Your task to perform on an android device: turn on javascript in the chrome app Image 0: 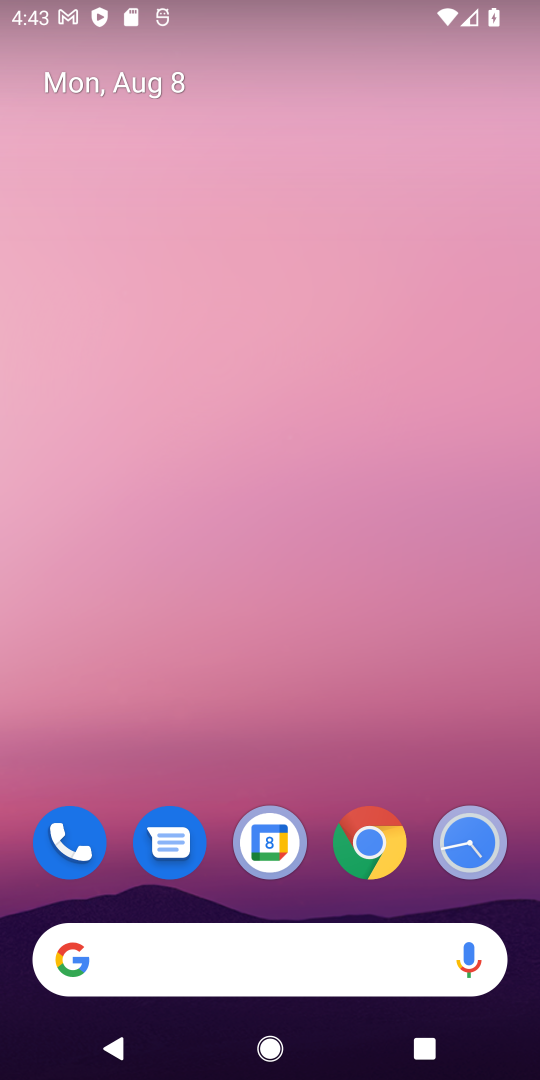
Step 0: click (363, 836)
Your task to perform on an android device: turn on javascript in the chrome app Image 1: 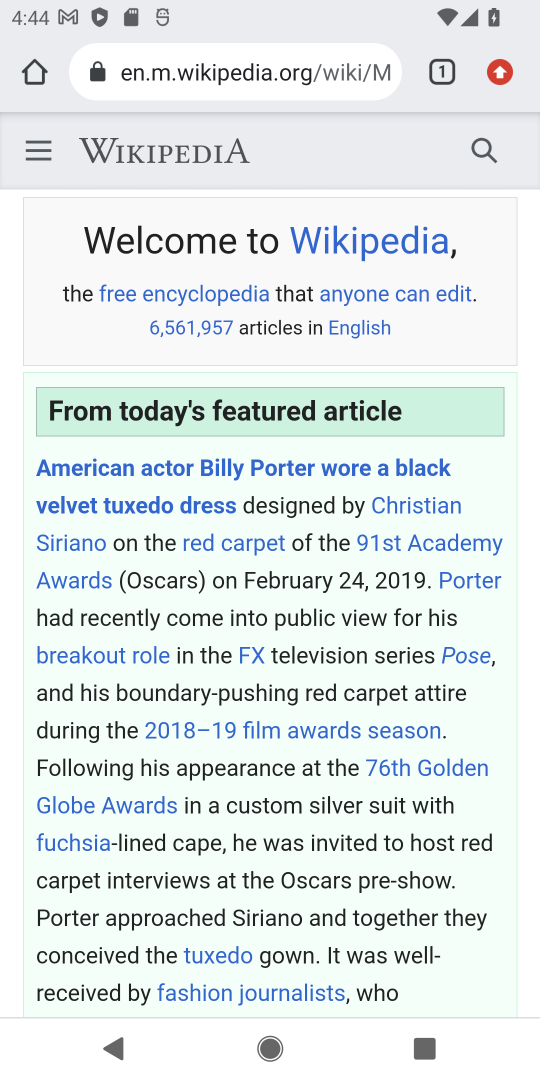
Step 1: click (510, 70)
Your task to perform on an android device: turn on javascript in the chrome app Image 2: 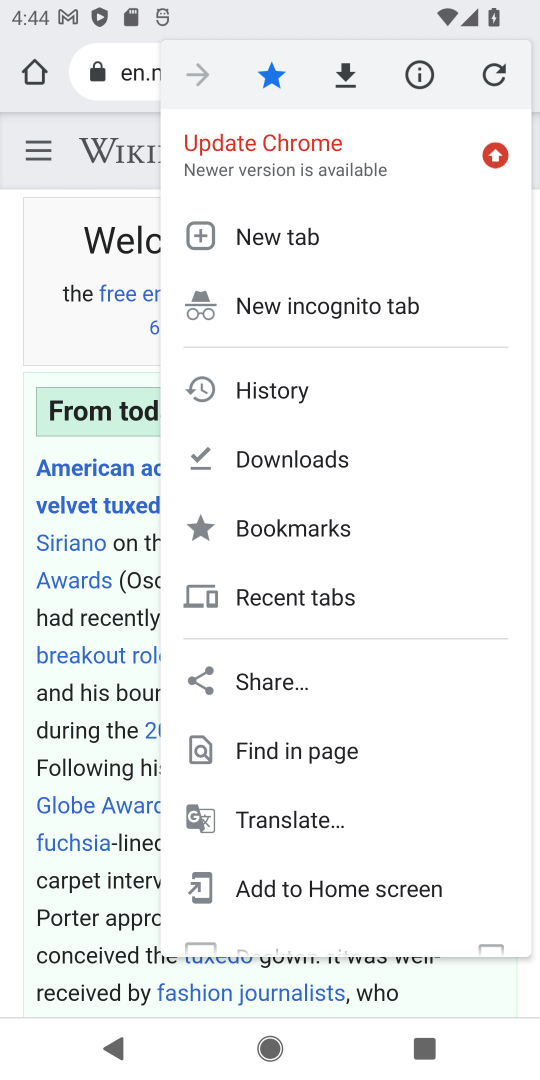
Step 2: drag from (337, 711) to (306, 366)
Your task to perform on an android device: turn on javascript in the chrome app Image 3: 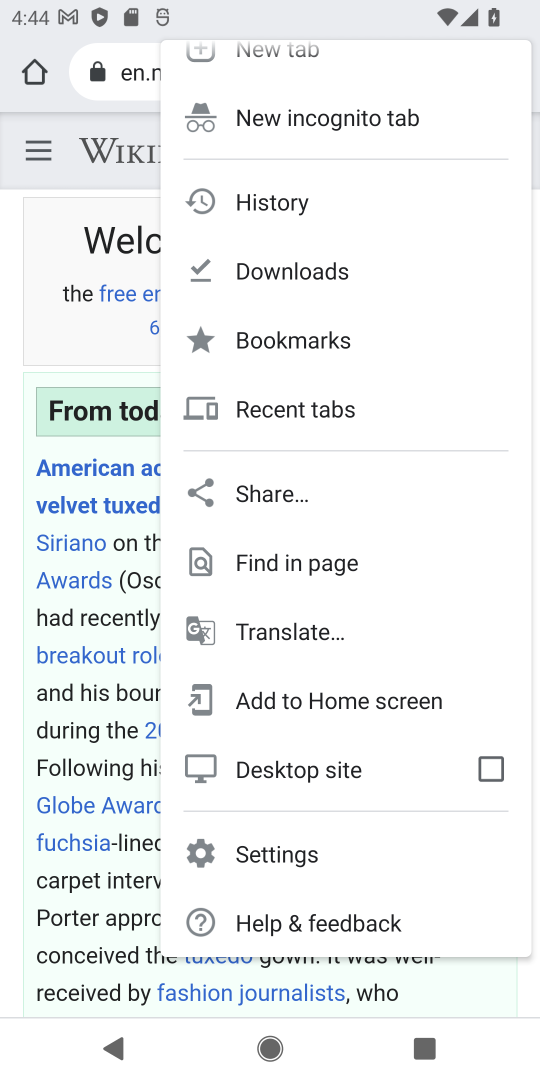
Step 3: click (304, 844)
Your task to perform on an android device: turn on javascript in the chrome app Image 4: 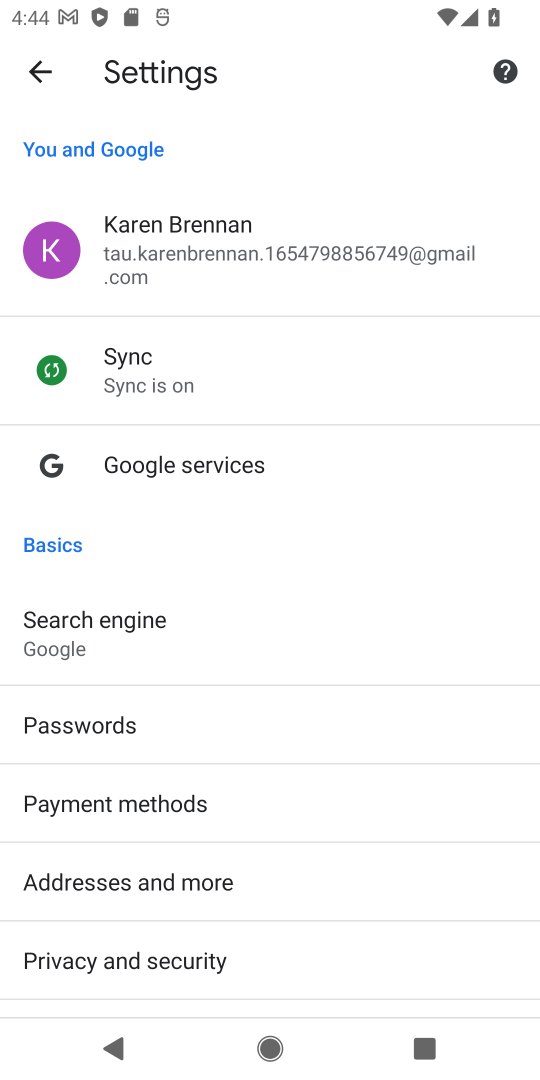
Step 4: drag from (282, 872) to (251, 331)
Your task to perform on an android device: turn on javascript in the chrome app Image 5: 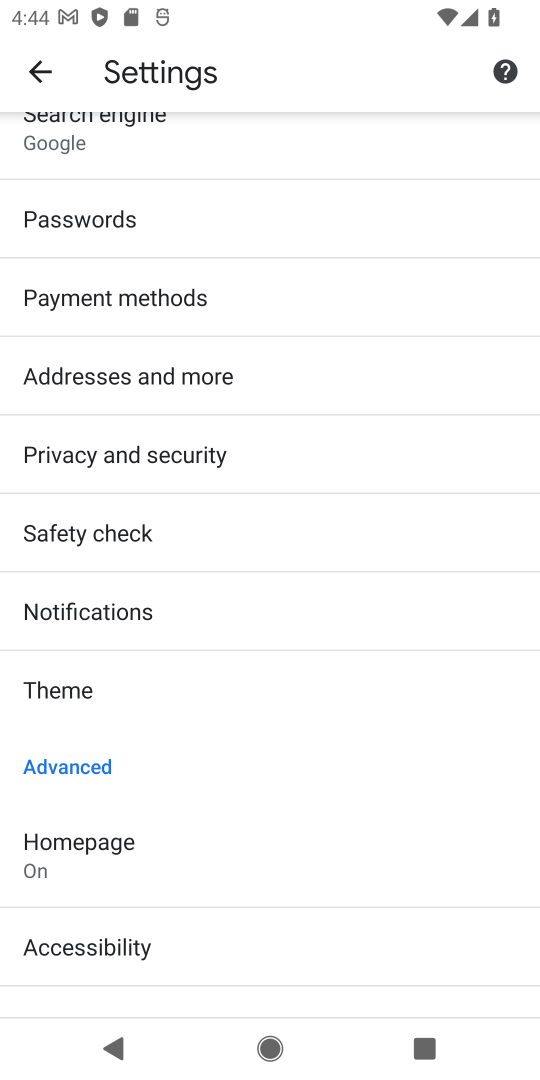
Step 5: drag from (274, 782) to (259, 382)
Your task to perform on an android device: turn on javascript in the chrome app Image 6: 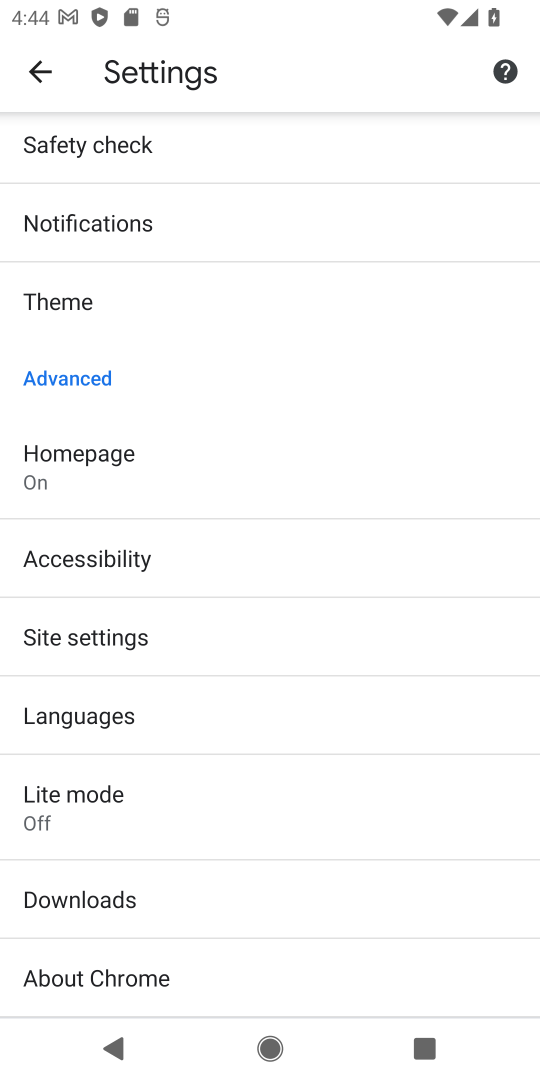
Step 6: click (119, 626)
Your task to perform on an android device: turn on javascript in the chrome app Image 7: 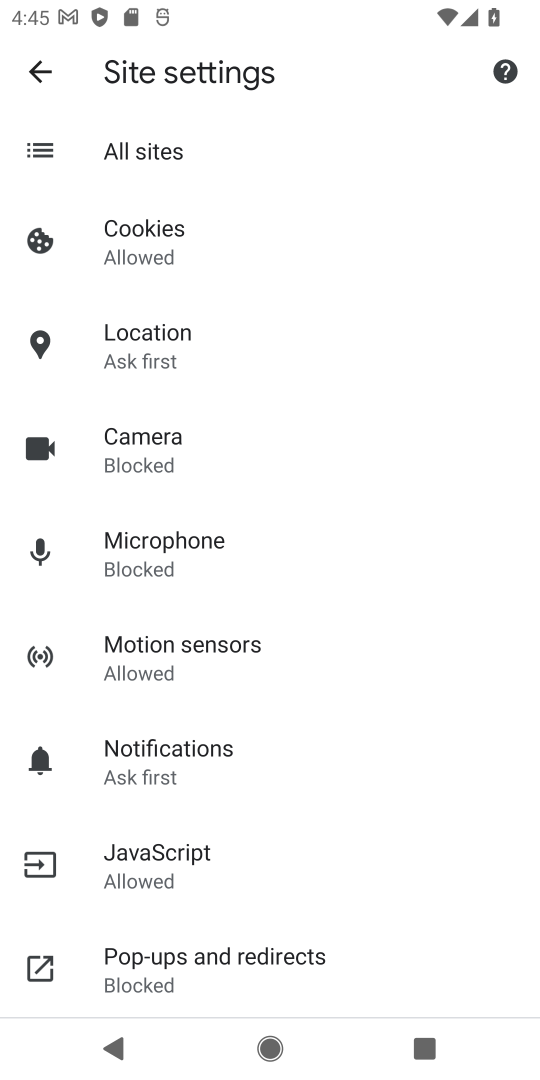
Step 7: click (248, 843)
Your task to perform on an android device: turn on javascript in the chrome app Image 8: 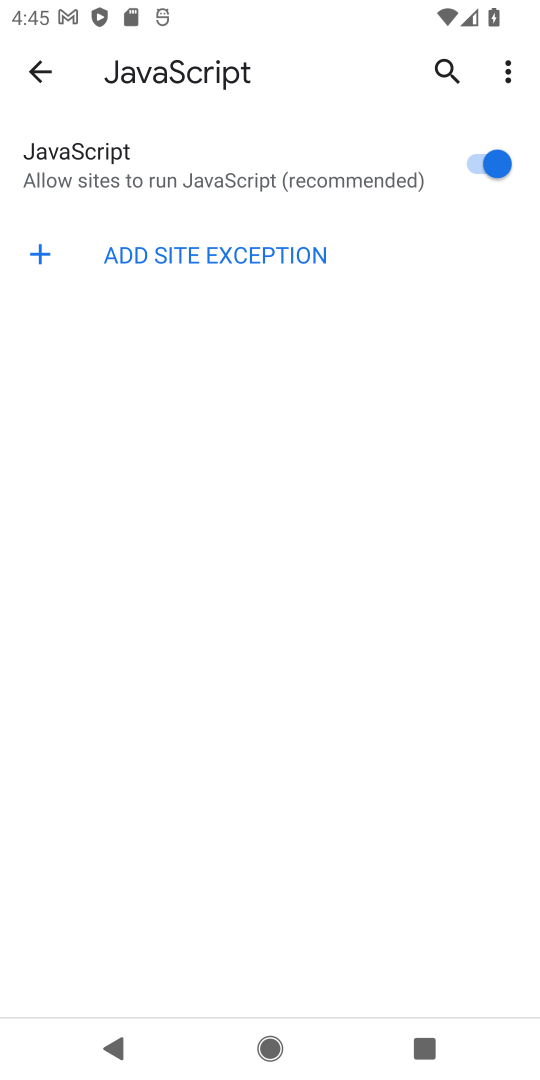
Step 8: task complete